Your task to perform on an android device: toggle show notifications on the lock screen Image 0: 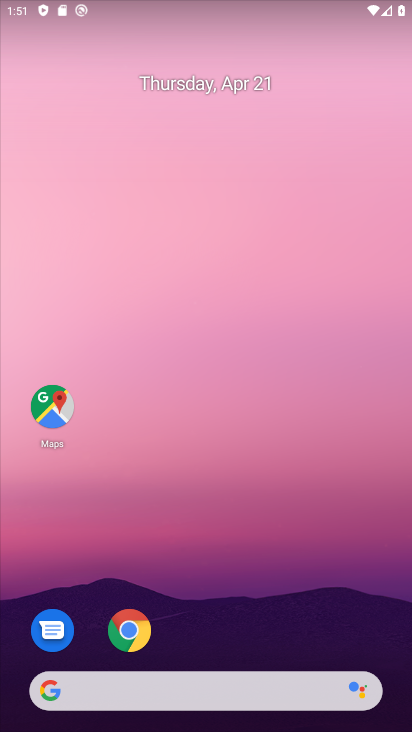
Step 0: drag from (217, 484) to (234, 174)
Your task to perform on an android device: toggle show notifications on the lock screen Image 1: 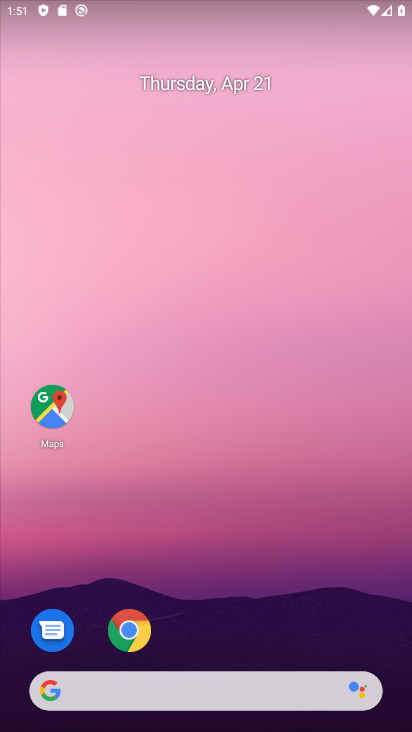
Step 1: drag from (226, 545) to (268, 190)
Your task to perform on an android device: toggle show notifications on the lock screen Image 2: 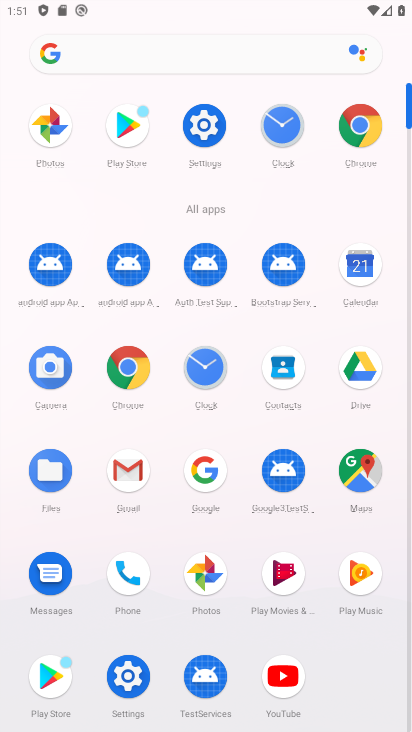
Step 2: click (208, 126)
Your task to perform on an android device: toggle show notifications on the lock screen Image 3: 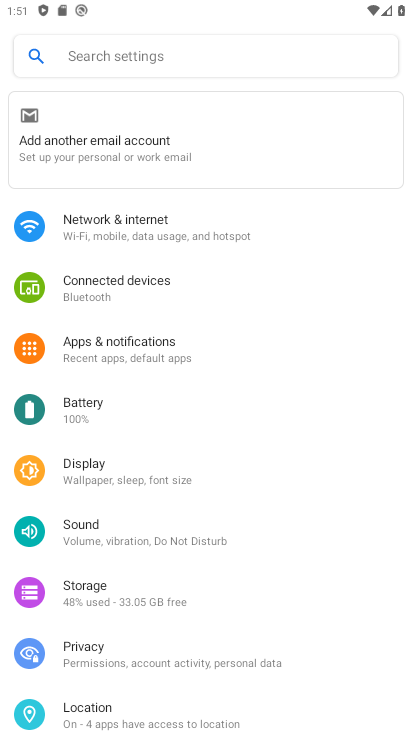
Step 3: click (135, 357)
Your task to perform on an android device: toggle show notifications on the lock screen Image 4: 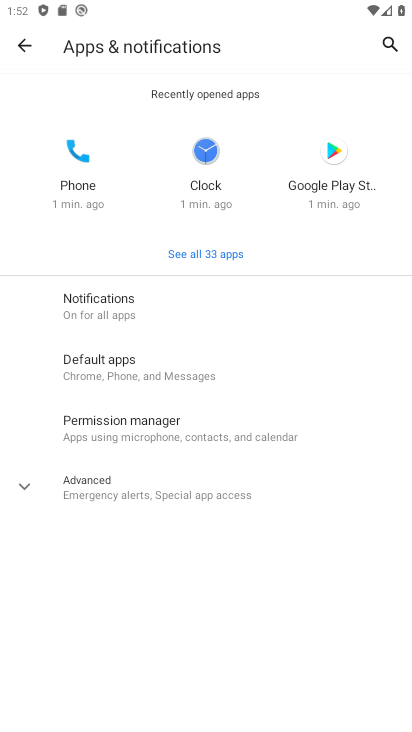
Step 4: click (108, 317)
Your task to perform on an android device: toggle show notifications on the lock screen Image 5: 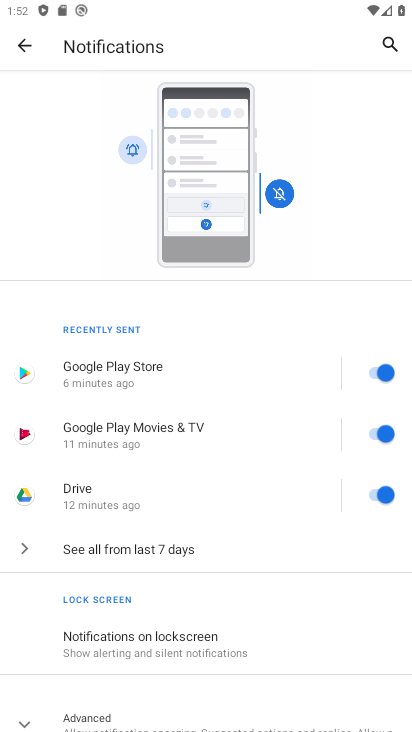
Step 5: click (189, 655)
Your task to perform on an android device: toggle show notifications on the lock screen Image 6: 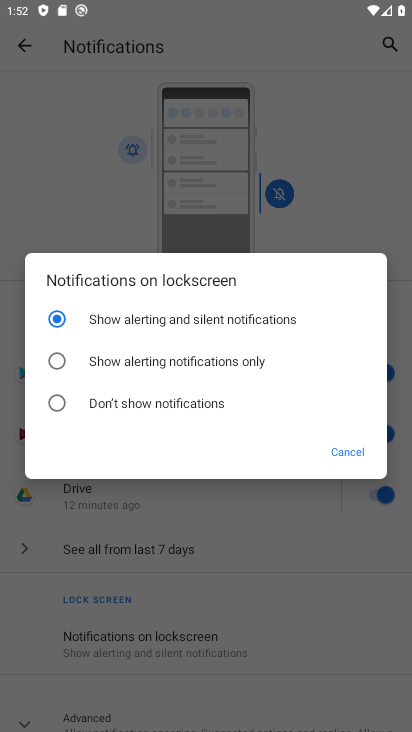
Step 6: click (205, 365)
Your task to perform on an android device: toggle show notifications on the lock screen Image 7: 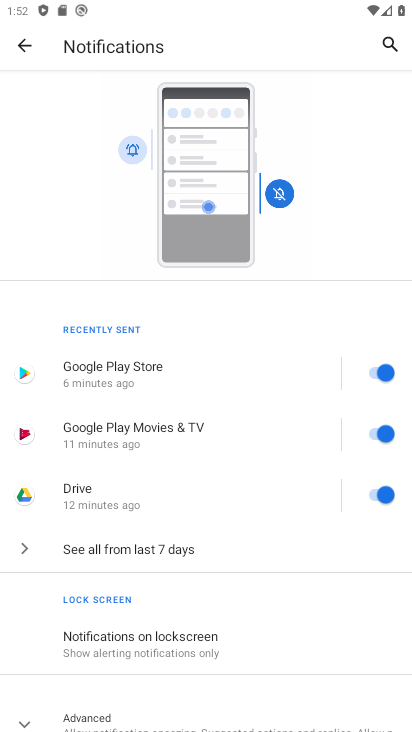
Step 7: task complete